Your task to perform on an android device: turn smart compose on in the gmail app Image 0: 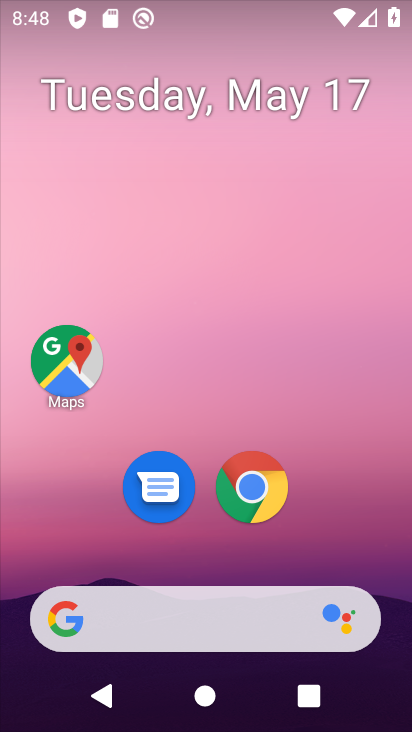
Step 0: press home button
Your task to perform on an android device: turn smart compose on in the gmail app Image 1: 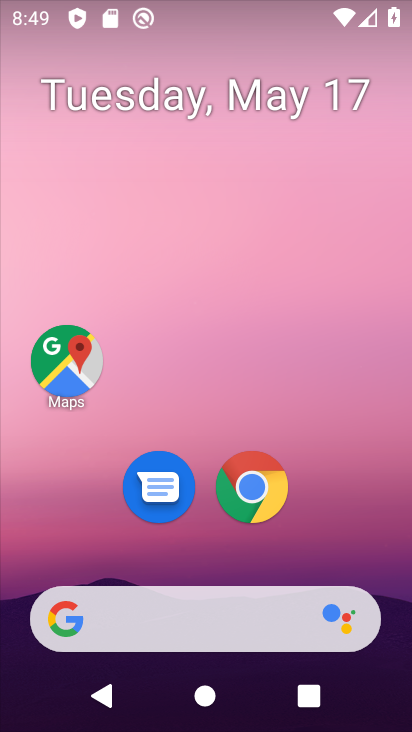
Step 1: drag from (301, 638) to (269, 211)
Your task to perform on an android device: turn smart compose on in the gmail app Image 2: 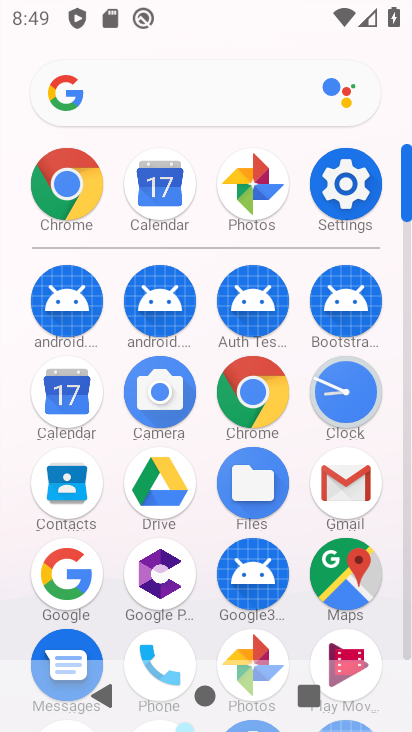
Step 2: click (329, 480)
Your task to perform on an android device: turn smart compose on in the gmail app Image 3: 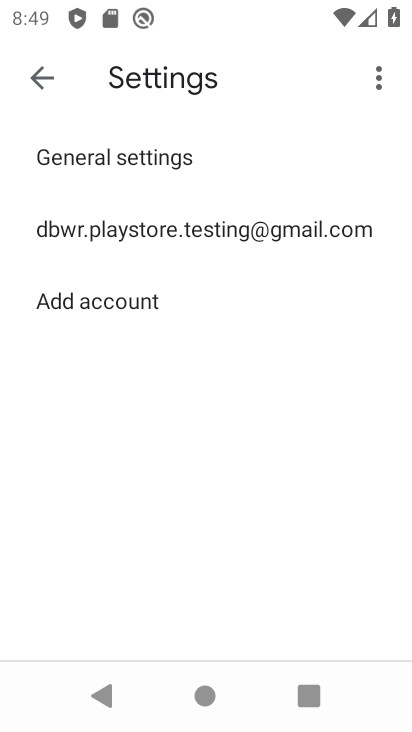
Step 3: click (123, 222)
Your task to perform on an android device: turn smart compose on in the gmail app Image 4: 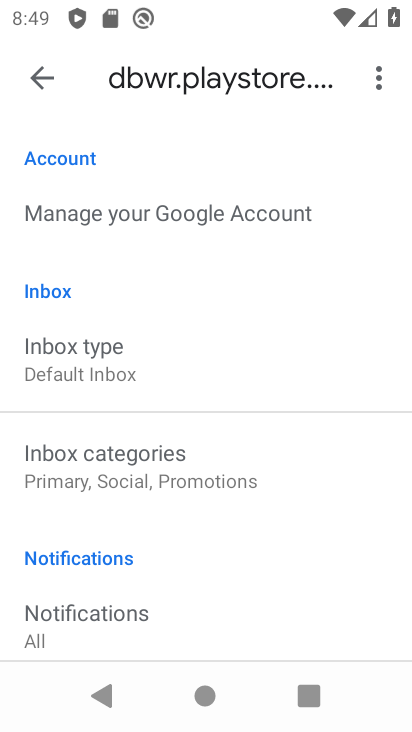
Step 4: drag from (217, 552) to (244, 157)
Your task to perform on an android device: turn smart compose on in the gmail app Image 5: 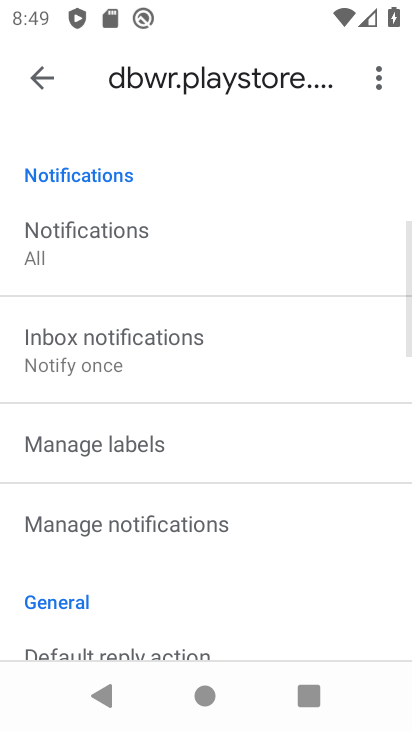
Step 5: drag from (224, 471) to (253, 193)
Your task to perform on an android device: turn smart compose on in the gmail app Image 6: 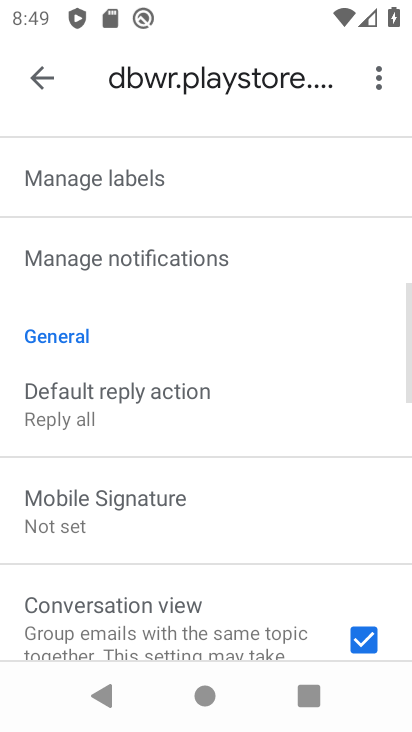
Step 6: drag from (262, 358) to (245, 38)
Your task to perform on an android device: turn smart compose on in the gmail app Image 7: 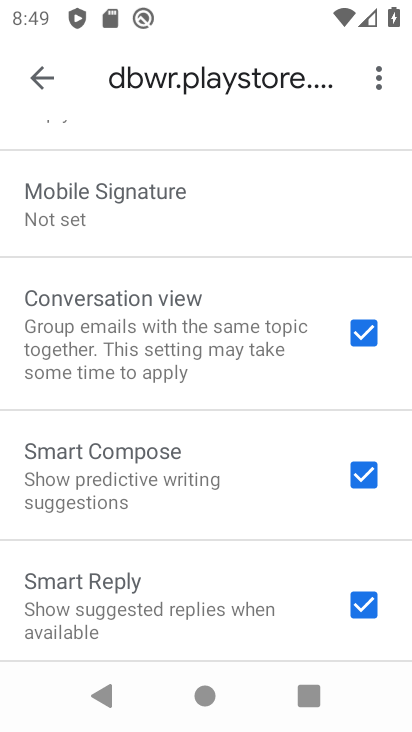
Step 7: drag from (200, 470) to (225, 236)
Your task to perform on an android device: turn smart compose on in the gmail app Image 8: 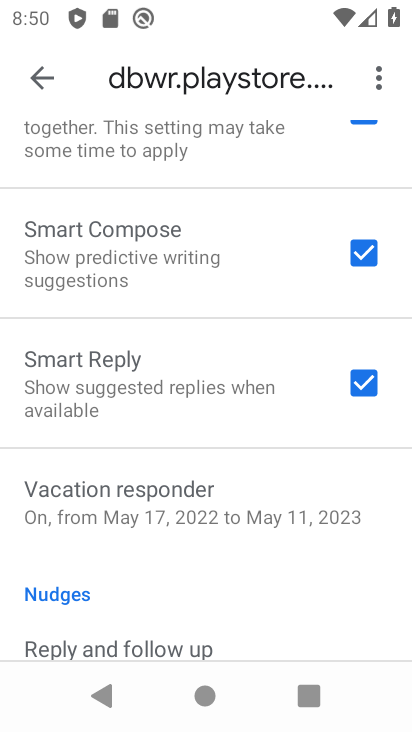
Step 8: click (189, 275)
Your task to perform on an android device: turn smart compose on in the gmail app Image 9: 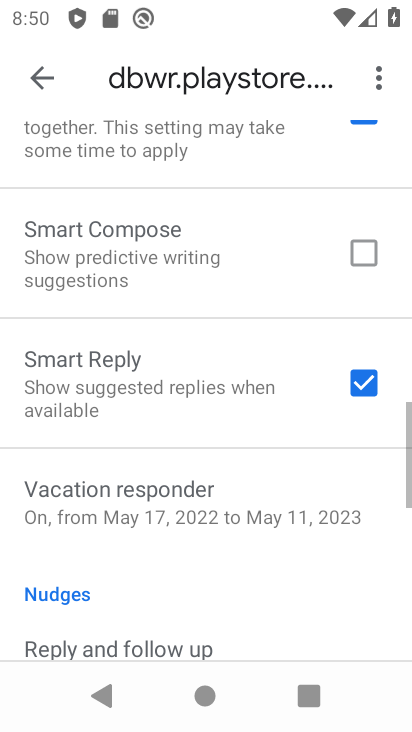
Step 9: click (190, 267)
Your task to perform on an android device: turn smart compose on in the gmail app Image 10: 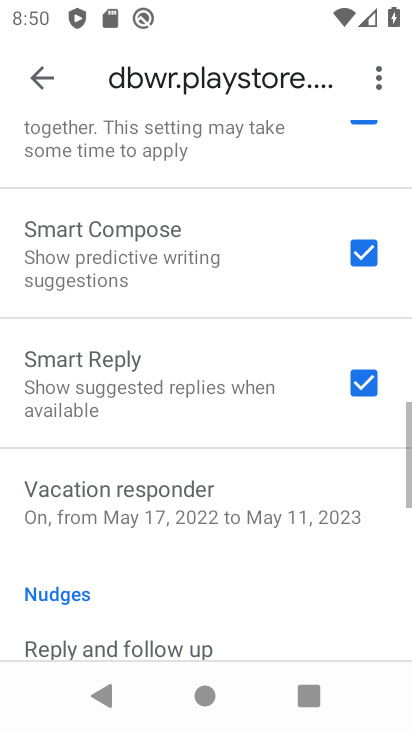
Step 10: task complete